Your task to perform on an android device: Open calendar and show me the fourth week of next month Image 0: 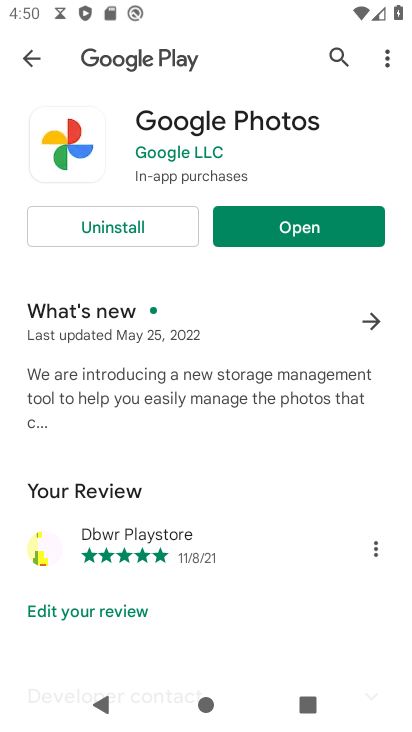
Step 0: press back button
Your task to perform on an android device: Open calendar and show me the fourth week of next month Image 1: 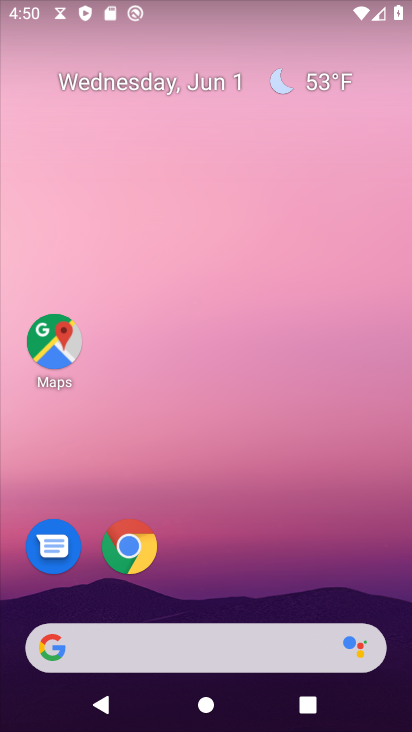
Step 1: drag from (261, 552) to (220, 16)
Your task to perform on an android device: Open calendar and show me the fourth week of next month Image 2: 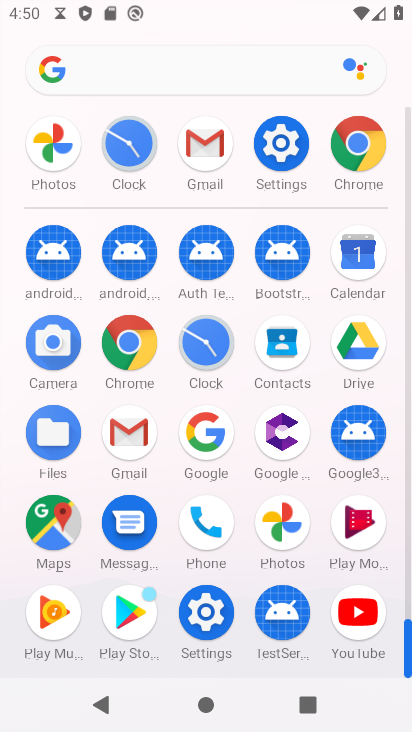
Step 2: drag from (1, 514) to (6, 258)
Your task to perform on an android device: Open calendar and show me the fourth week of next month Image 3: 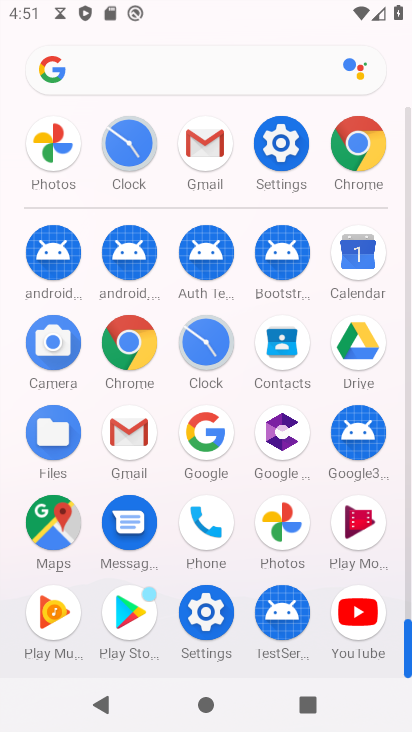
Step 3: click (356, 255)
Your task to perform on an android device: Open calendar and show me the fourth week of next month Image 4: 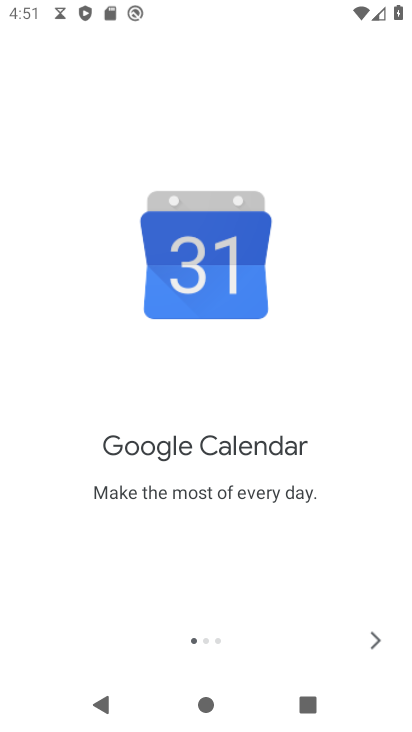
Step 4: click (369, 626)
Your task to perform on an android device: Open calendar and show me the fourth week of next month Image 5: 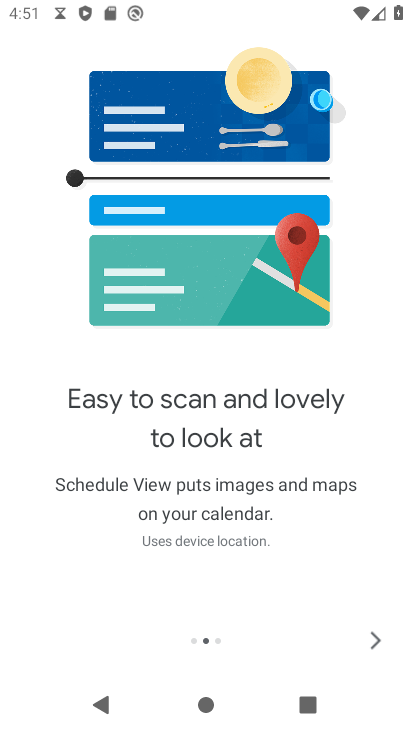
Step 5: click (369, 627)
Your task to perform on an android device: Open calendar and show me the fourth week of next month Image 6: 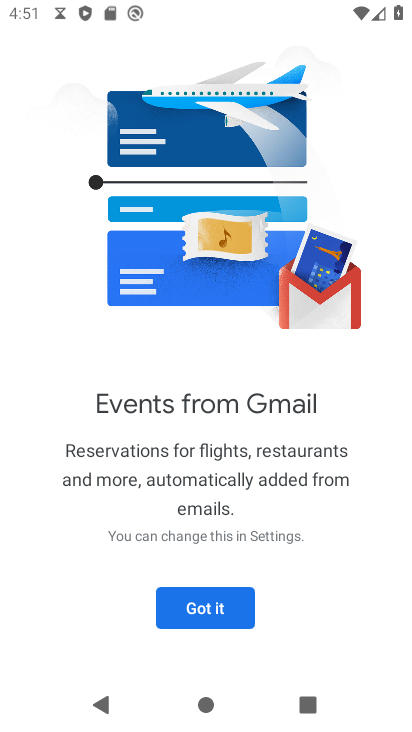
Step 6: click (213, 596)
Your task to perform on an android device: Open calendar and show me the fourth week of next month Image 7: 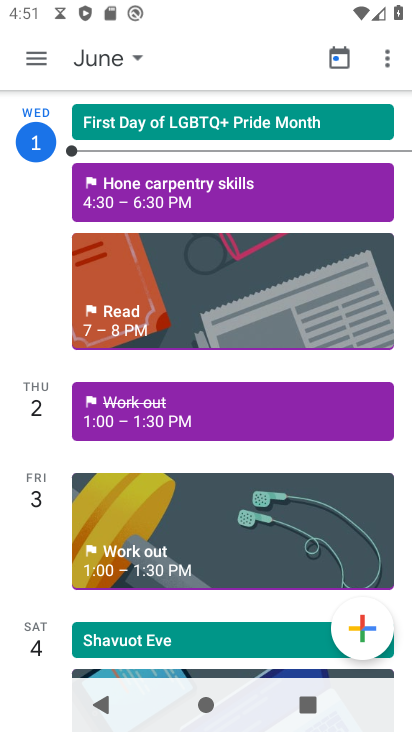
Step 7: click (100, 41)
Your task to perform on an android device: Open calendar and show me the fourth week of next month Image 8: 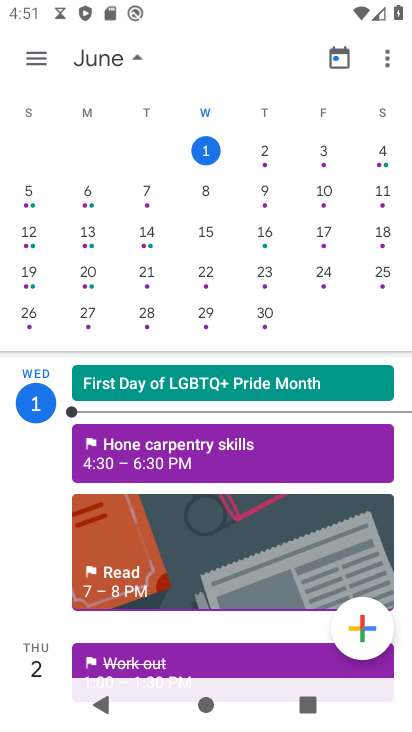
Step 8: drag from (383, 225) to (0, 225)
Your task to perform on an android device: Open calendar and show me the fourth week of next month Image 9: 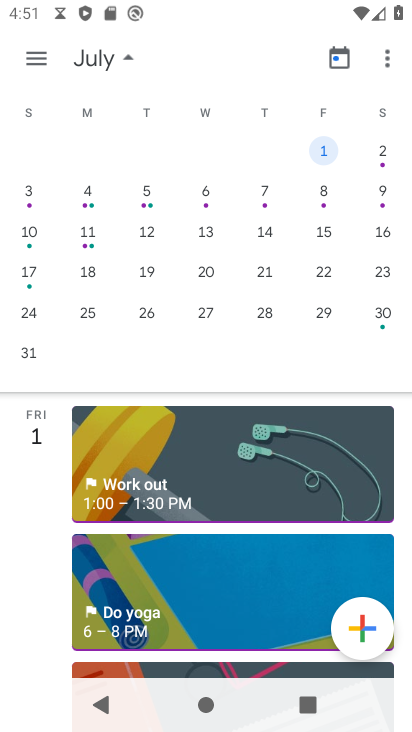
Step 9: click (29, 279)
Your task to perform on an android device: Open calendar and show me the fourth week of next month Image 10: 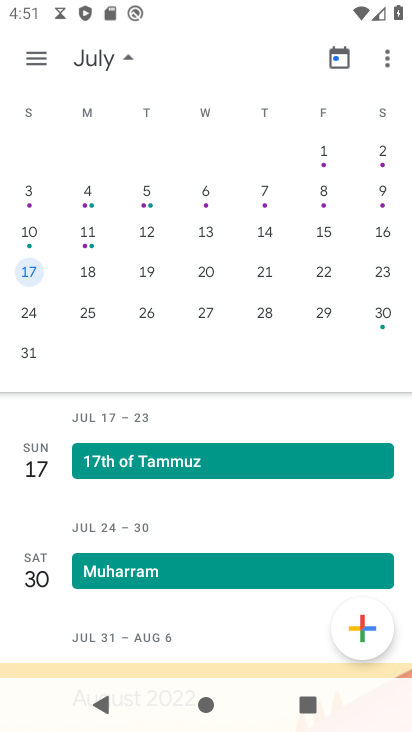
Step 10: click (43, 62)
Your task to perform on an android device: Open calendar and show me the fourth week of next month Image 11: 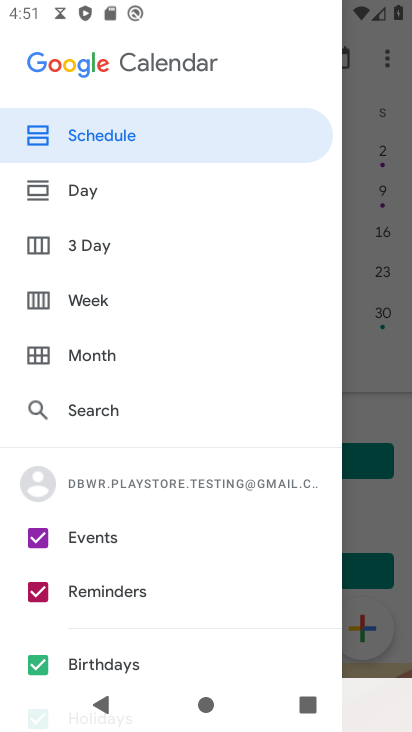
Step 11: click (101, 298)
Your task to perform on an android device: Open calendar and show me the fourth week of next month Image 12: 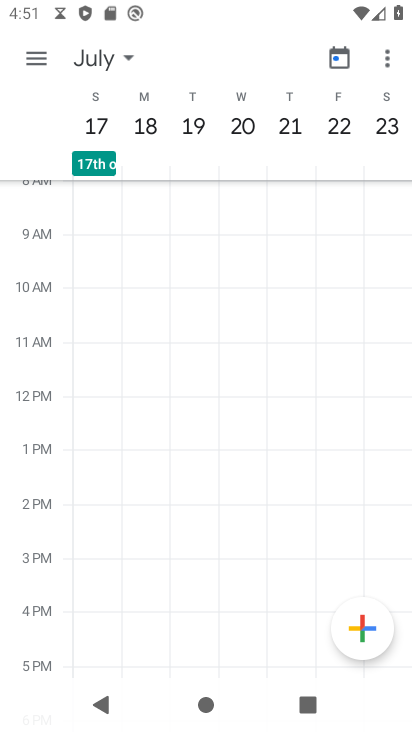
Step 12: task complete